Your task to perform on an android device: Search for "jbl flip 4" on newegg.com, select the first entry, add it to the cart, then select checkout. Image 0: 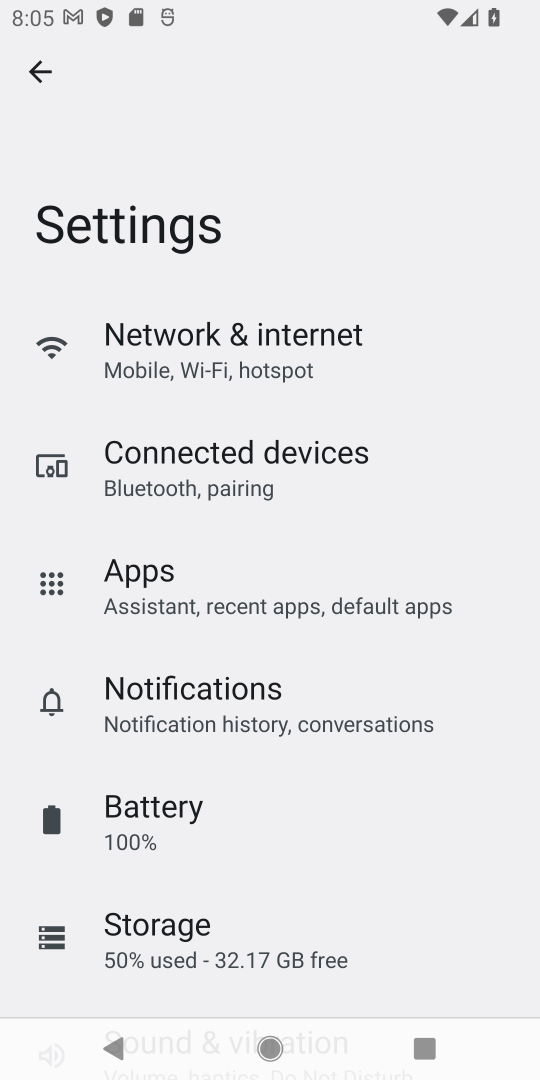
Step 0: press home button
Your task to perform on an android device: Search for "jbl flip 4" on newegg.com, select the first entry, add it to the cart, then select checkout. Image 1: 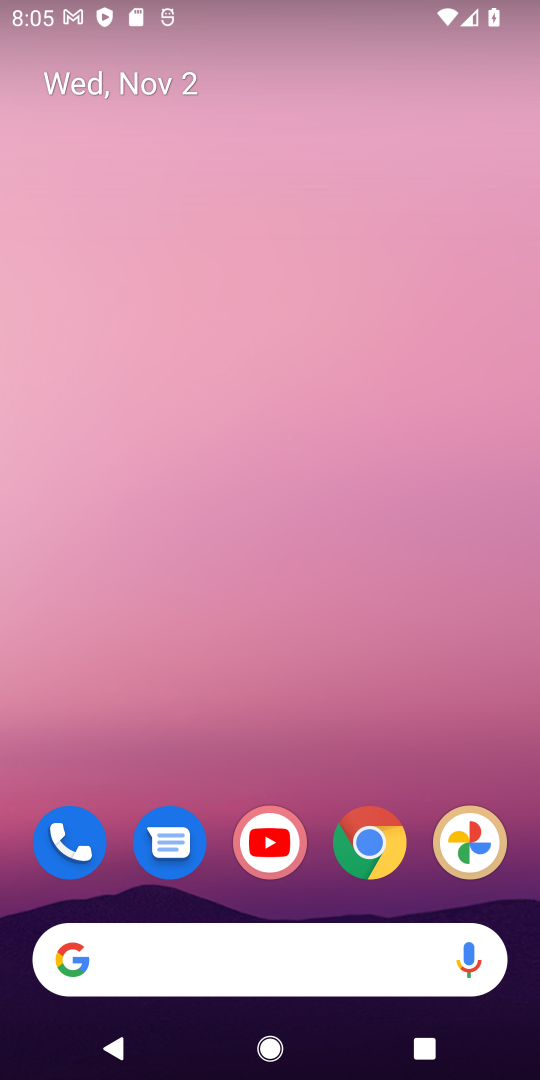
Step 1: drag from (296, 994) to (258, 618)
Your task to perform on an android device: Search for "jbl flip 4" on newegg.com, select the first entry, add it to the cart, then select checkout. Image 2: 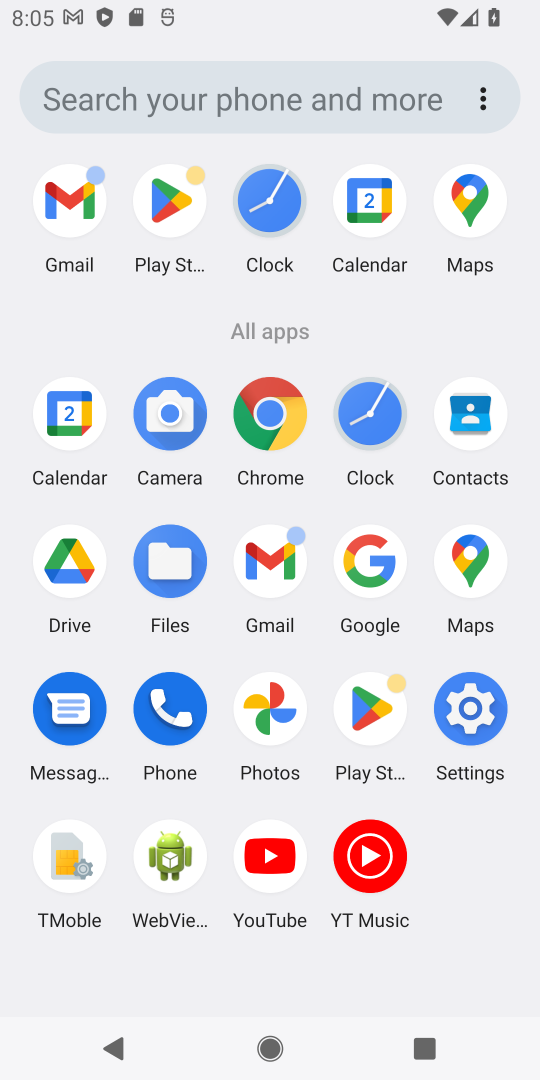
Step 2: click (362, 536)
Your task to perform on an android device: Search for "jbl flip 4" on newegg.com, select the first entry, add it to the cart, then select checkout. Image 3: 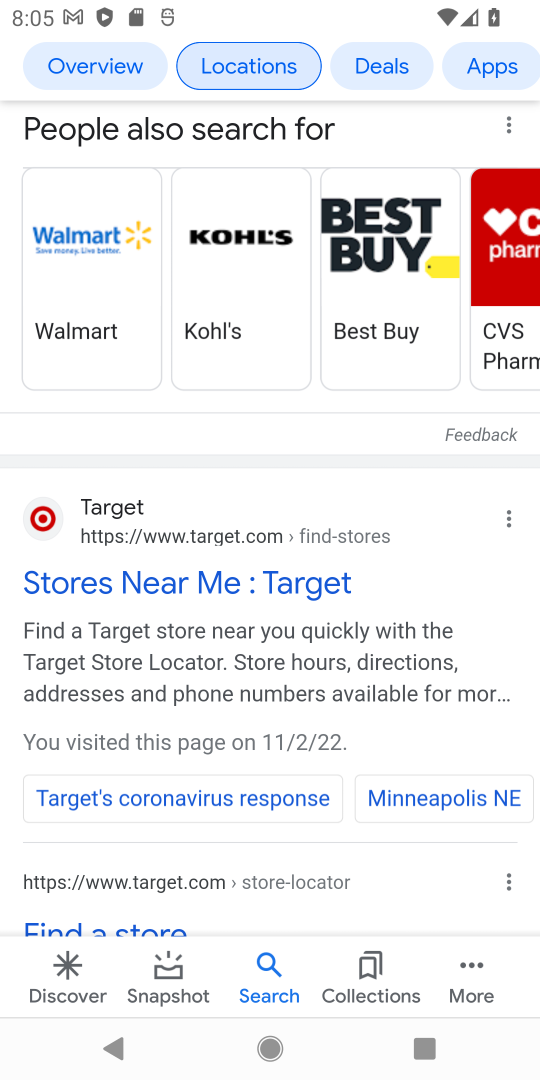
Step 3: drag from (230, 468) to (233, 938)
Your task to perform on an android device: Search for "jbl flip 4" on newegg.com, select the first entry, add it to the cart, then select checkout. Image 4: 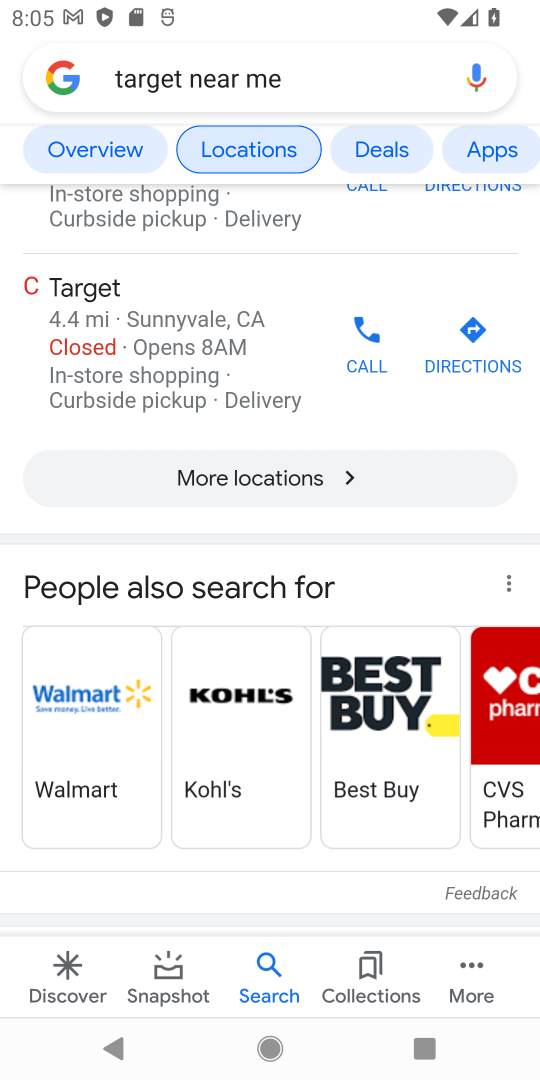
Step 4: click (208, 62)
Your task to perform on an android device: Search for "jbl flip 4" on newegg.com, select the first entry, add it to the cart, then select checkout. Image 5: 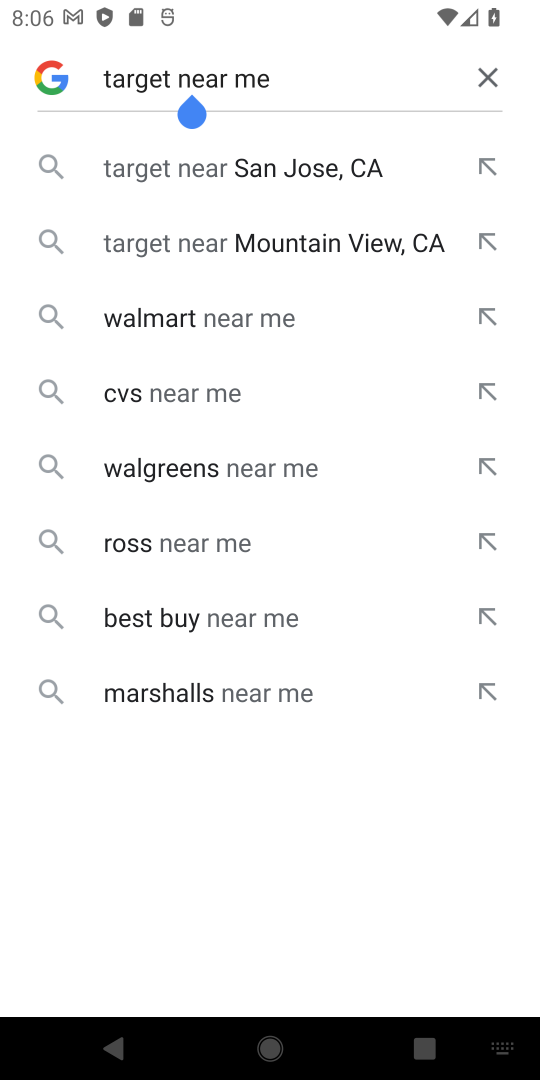
Step 5: click (494, 78)
Your task to perform on an android device: Search for "jbl flip 4" on newegg.com, select the first entry, add it to the cart, then select checkout. Image 6: 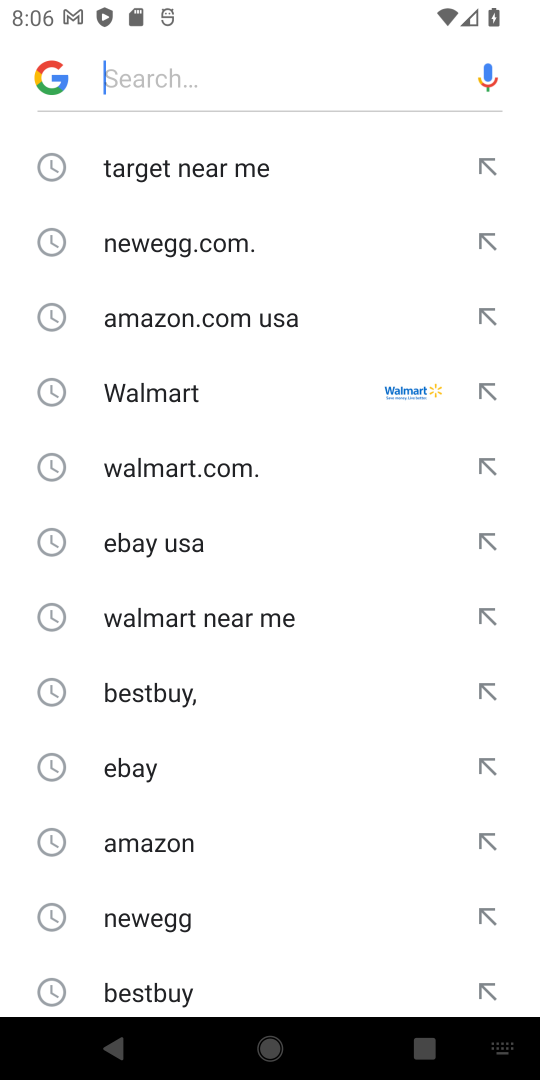
Step 6: click (207, 73)
Your task to perform on an android device: Search for "jbl flip 4" on newegg.com, select the first entry, add it to the cart, then select checkout. Image 7: 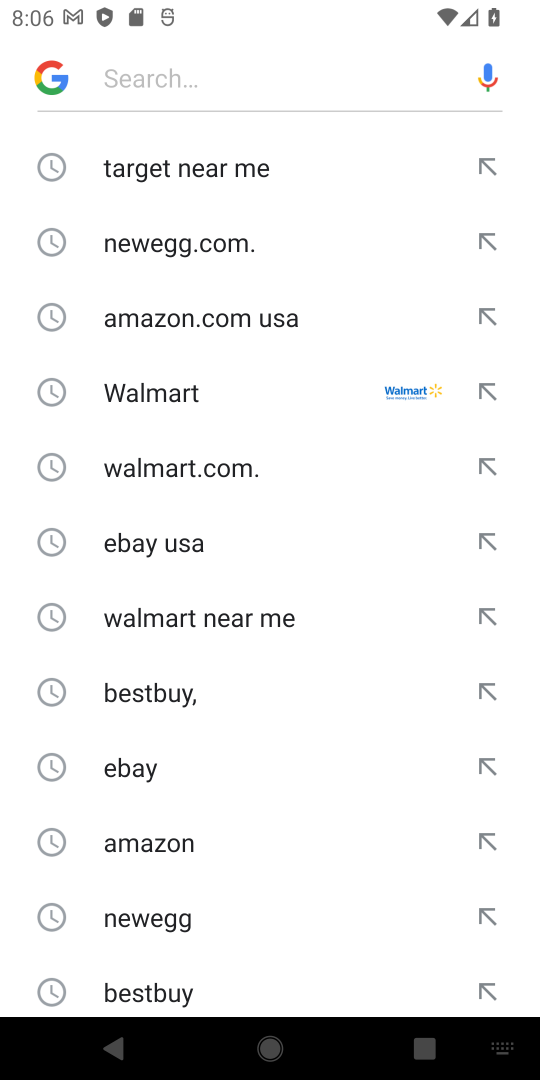
Step 7: type "newegg "
Your task to perform on an android device: Search for "jbl flip 4" on newegg.com, select the first entry, add it to the cart, then select checkout. Image 8: 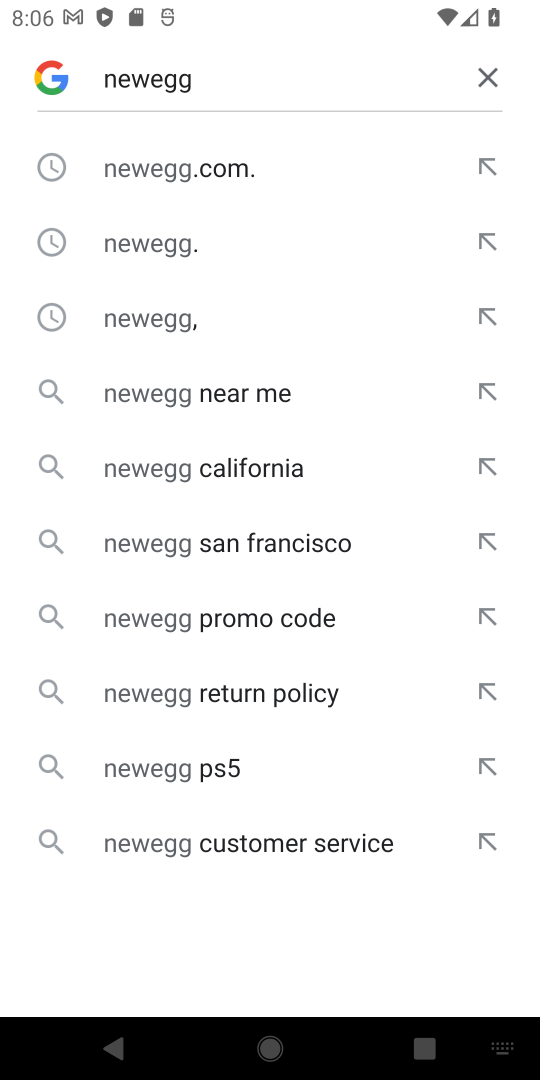
Step 8: click (180, 177)
Your task to perform on an android device: Search for "jbl flip 4" on newegg.com, select the first entry, add it to the cart, then select checkout. Image 9: 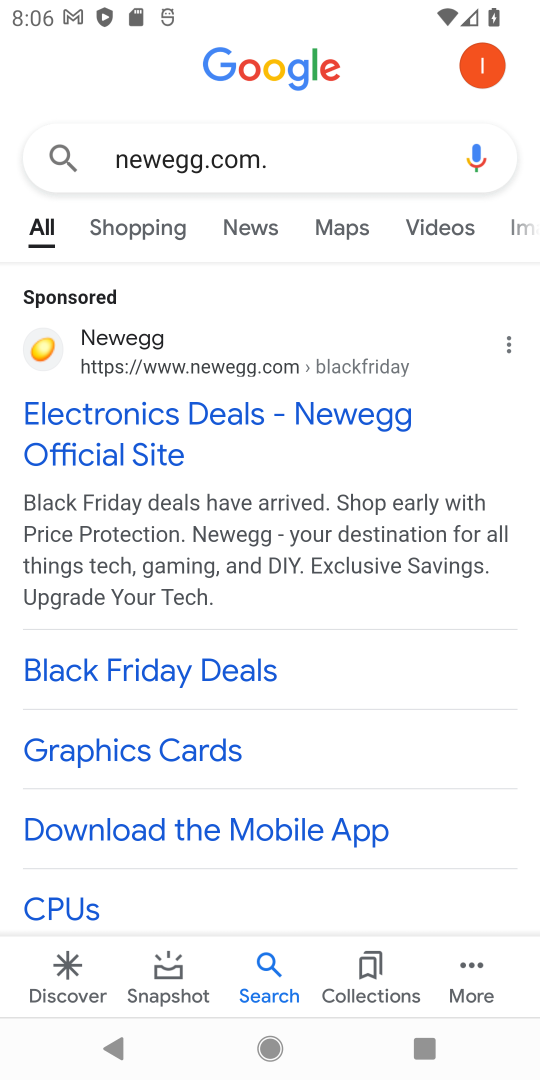
Step 9: click (32, 350)
Your task to perform on an android device: Search for "jbl flip 4" on newegg.com, select the first entry, add it to the cart, then select checkout. Image 10: 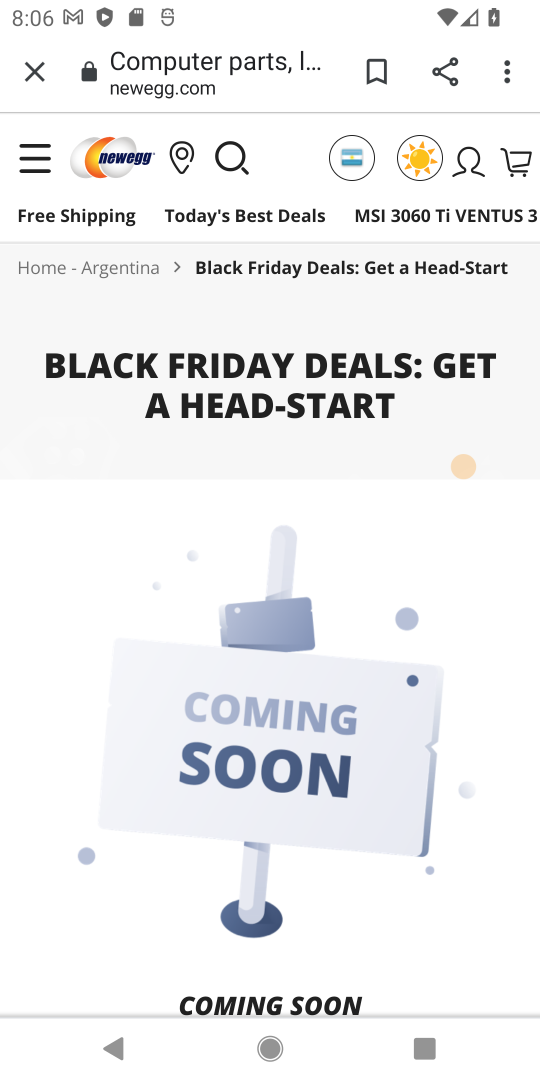
Step 10: click (226, 141)
Your task to perform on an android device: Search for "jbl flip 4" on newegg.com, select the first entry, add it to the cart, then select checkout. Image 11: 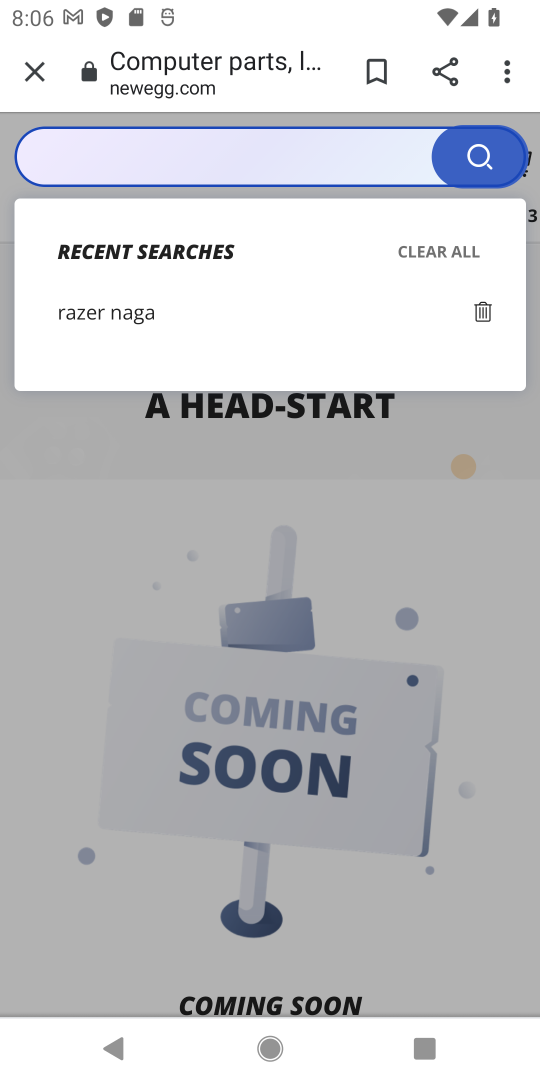
Step 11: click (242, 131)
Your task to perform on an android device: Search for "jbl flip 4" on newegg.com, select the first entry, add it to the cart, then select checkout. Image 12: 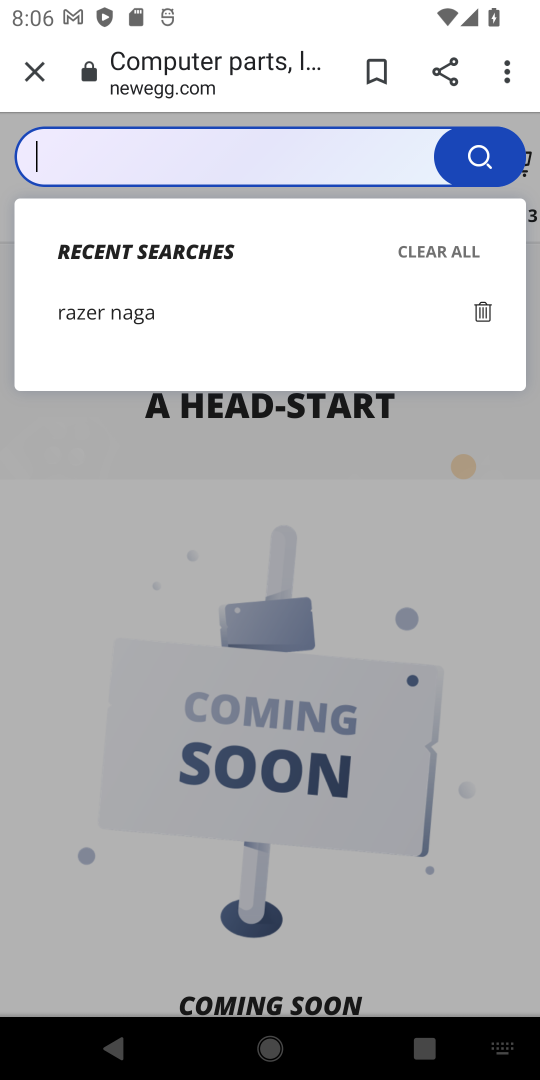
Step 12: type "jbl flip 4 "
Your task to perform on an android device: Search for "jbl flip 4" on newegg.com, select the first entry, add it to the cart, then select checkout. Image 13: 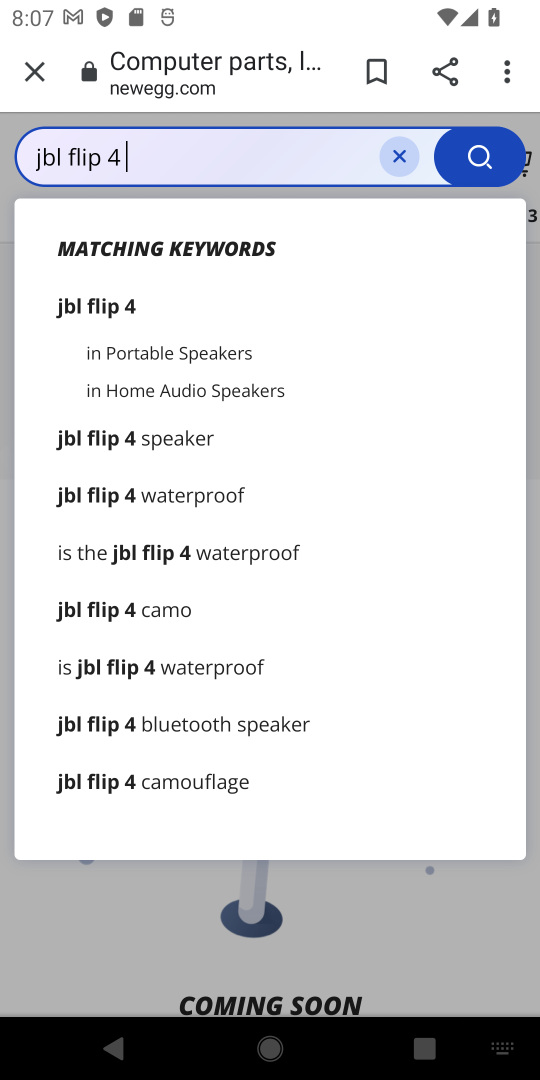
Step 13: click (83, 316)
Your task to perform on an android device: Search for "jbl flip 4" on newegg.com, select the first entry, add it to the cart, then select checkout. Image 14: 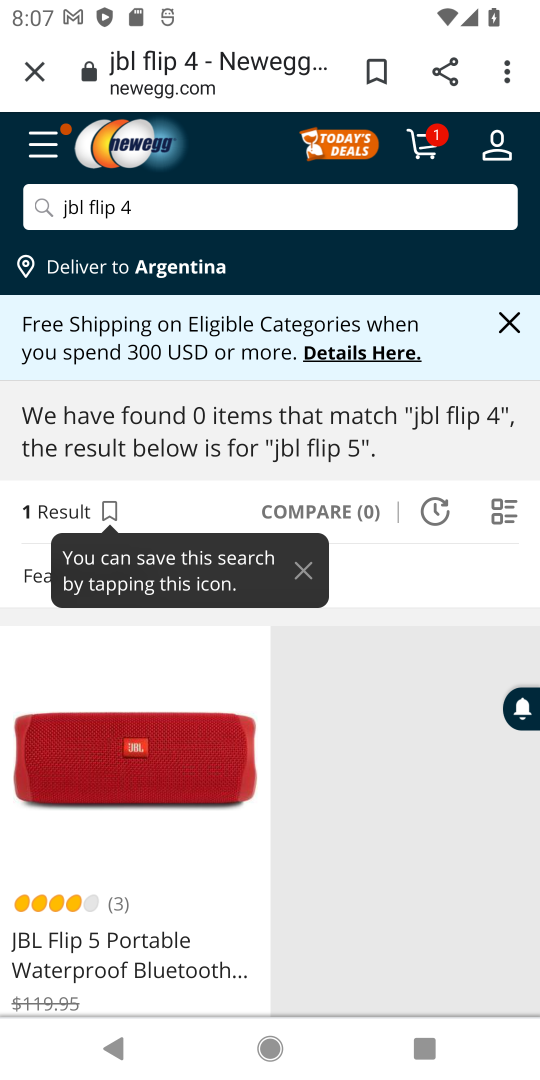
Step 14: drag from (375, 884) to (397, 314)
Your task to perform on an android device: Search for "jbl flip 4" on newegg.com, select the first entry, add it to the cart, then select checkout. Image 15: 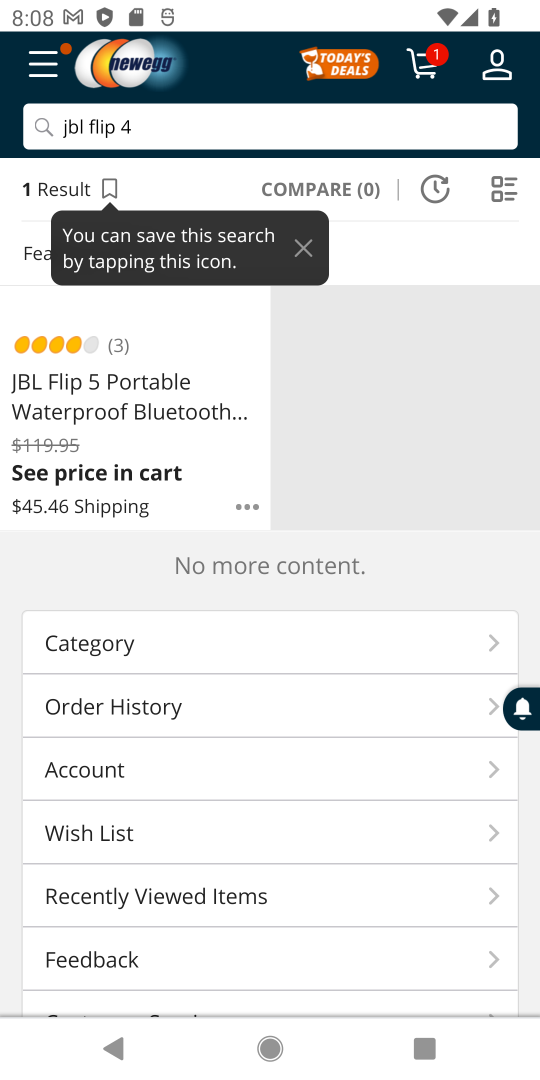
Step 15: drag from (314, 377) to (293, 837)
Your task to perform on an android device: Search for "jbl flip 4" on newegg.com, select the first entry, add it to the cart, then select checkout. Image 16: 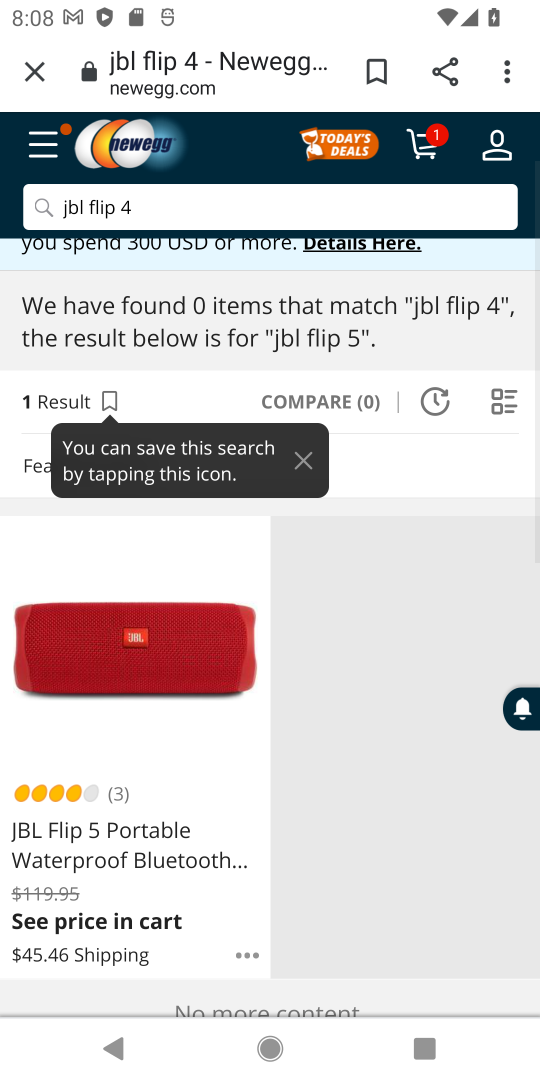
Step 16: drag from (263, 813) to (257, 631)
Your task to perform on an android device: Search for "jbl flip 4" on newegg.com, select the first entry, add it to the cart, then select checkout. Image 17: 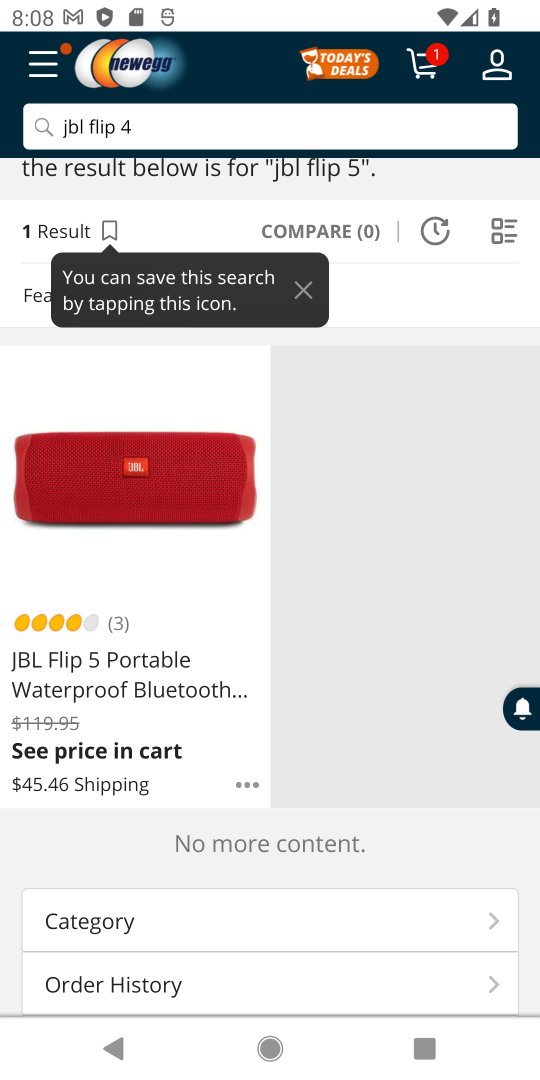
Step 17: click (238, 836)
Your task to perform on an android device: Search for "jbl flip 4" on newegg.com, select the first entry, add it to the cart, then select checkout. Image 18: 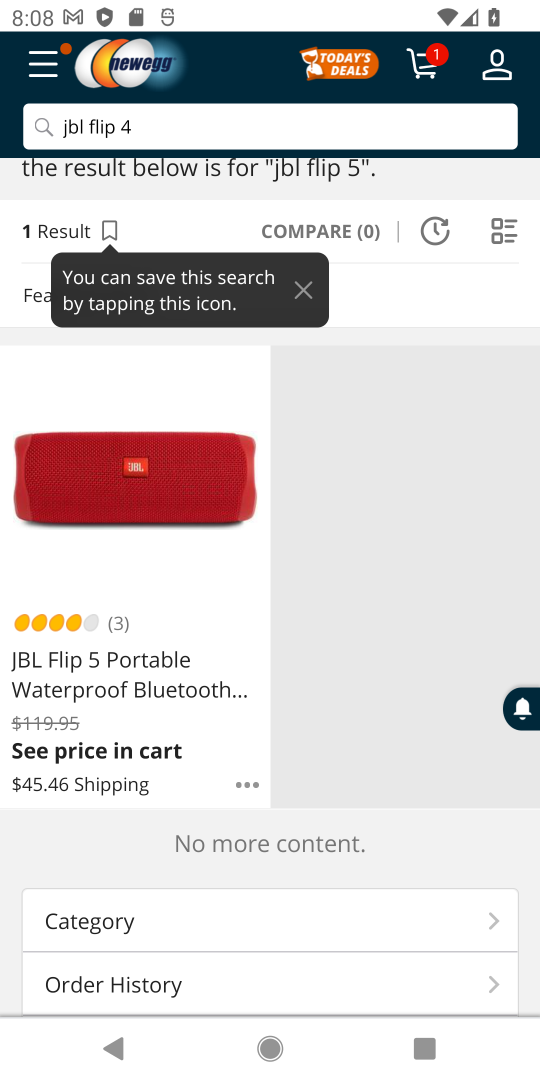
Step 18: click (189, 777)
Your task to perform on an android device: Search for "jbl flip 4" on newegg.com, select the first entry, add it to the cart, then select checkout. Image 19: 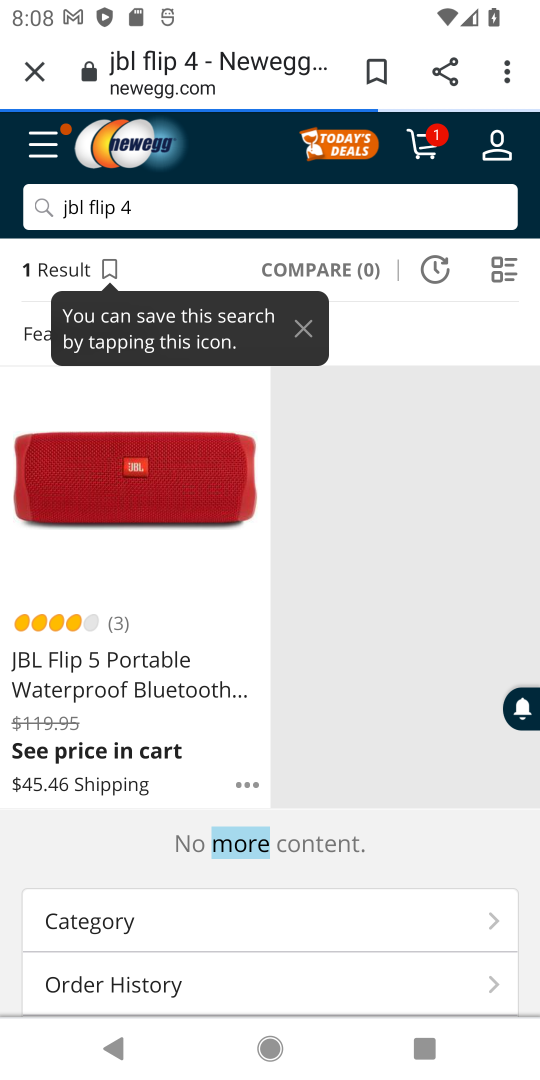
Step 19: click (174, 674)
Your task to perform on an android device: Search for "jbl flip 4" on newegg.com, select the first entry, add it to the cart, then select checkout. Image 20: 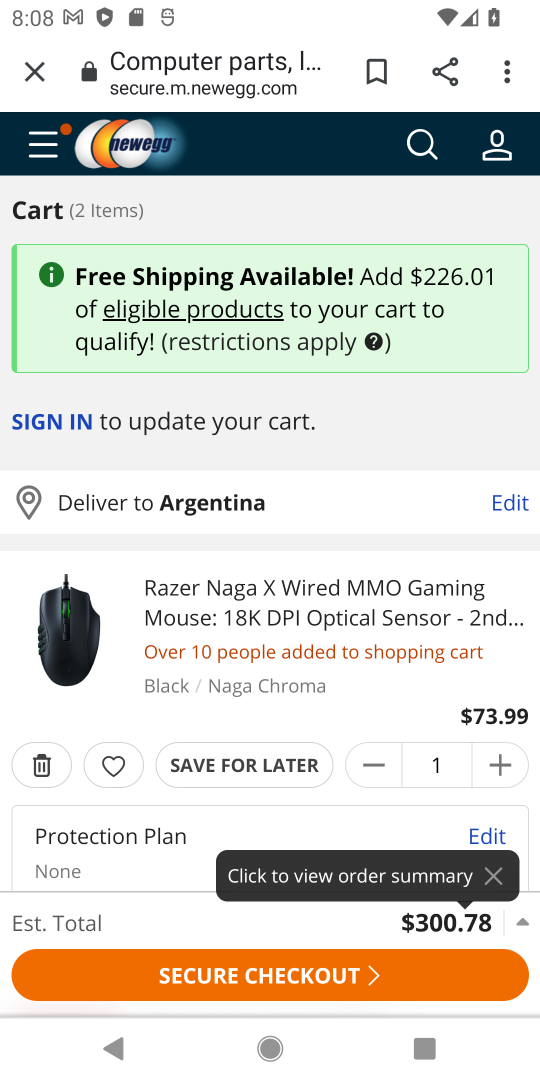
Step 20: drag from (99, 837) to (163, 475)
Your task to perform on an android device: Search for "jbl flip 4" on newegg.com, select the first entry, add it to the cart, then select checkout. Image 21: 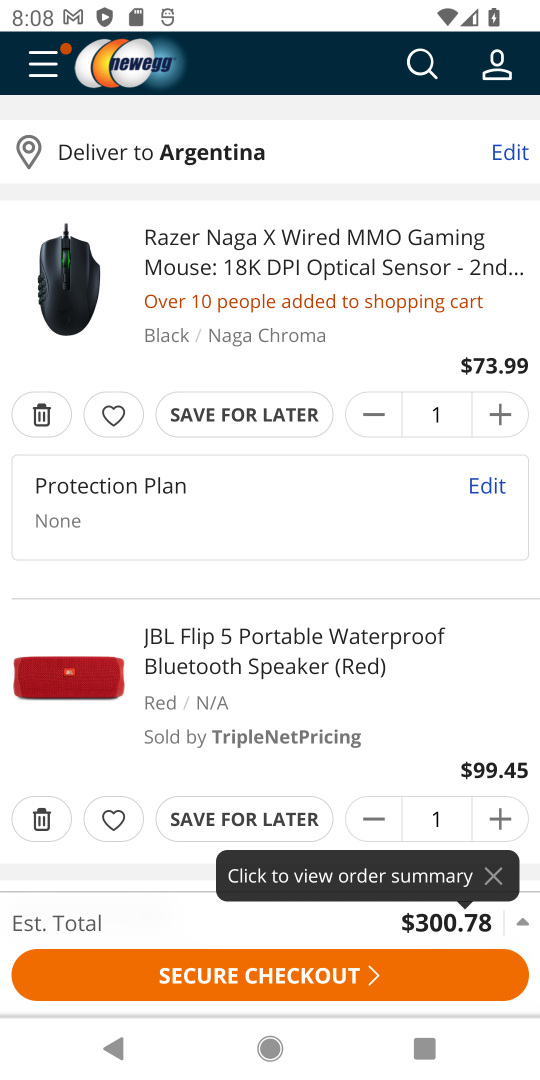
Step 21: click (373, 754)
Your task to perform on an android device: Search for "jbl flip 4" on newegg.com, select the first entry, add it to the cart, then select checkout. Image 22: 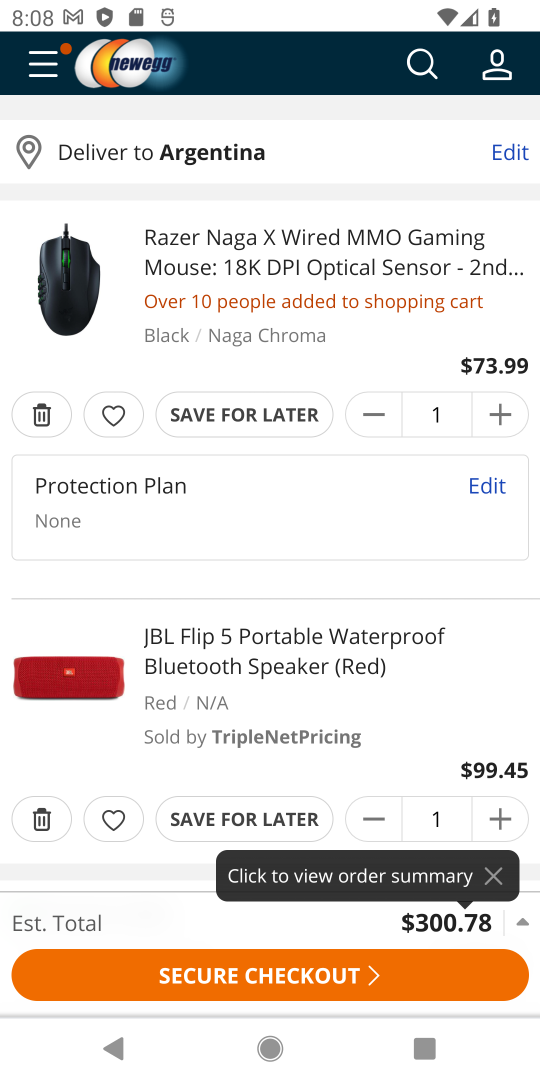
Step 22: click (328, 672)
Your task to perform on an android device: Search for "jbl flip 4" on newegg.com, select the first entry, add it to the cart, then select checkout. Image 23: 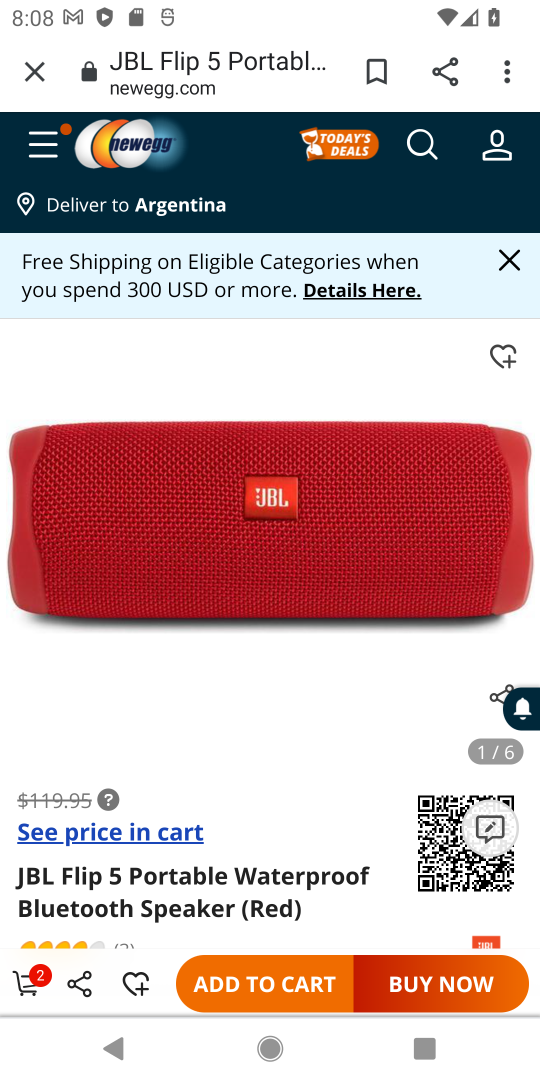
Step 23: click (265, 969)
Your task to perform on an android device: Search for "jbl flip 4" on newegg.com, select the first entry, add it to the cart, then select checkout. Image 24: 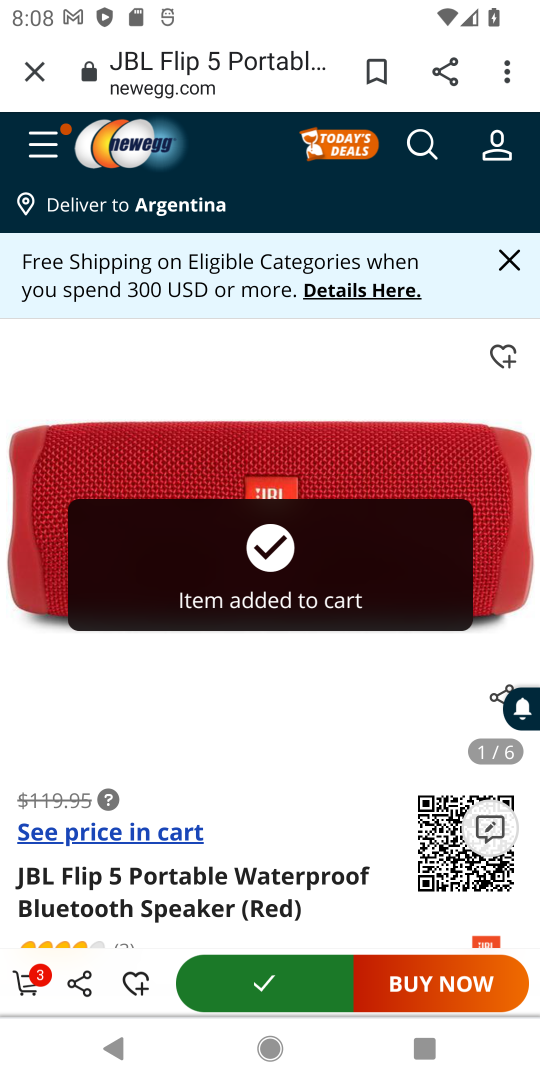
Step 24: task complete